Your task to perform on an android device: What's the weather? Image 0: 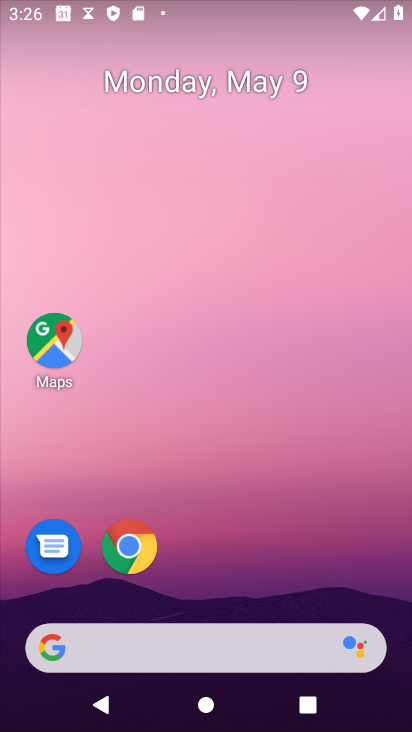
Step 0: drag from (329, 512) to (313, 157)
Your task to perform on an android device: What's the weather? Image 1: 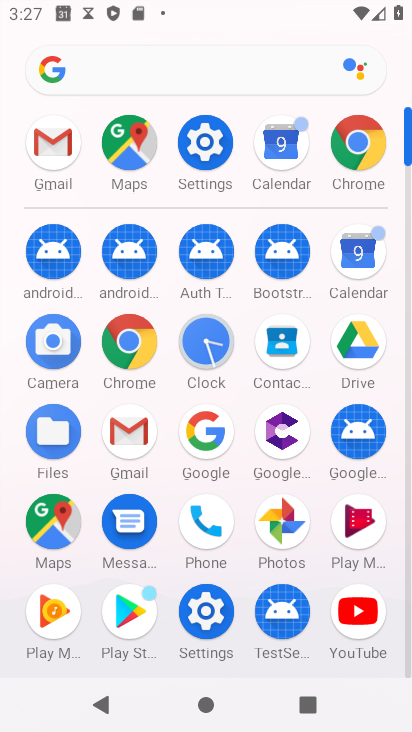
Step 1: press home button
Your task to perform on an android device: What's the weather? Image 2: 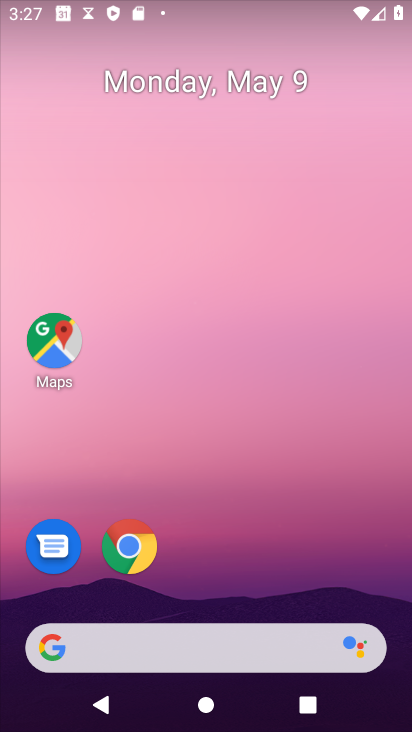
Step 2: click (49, 646)
Your task to perform on an android device: What's the weather? Image 3: 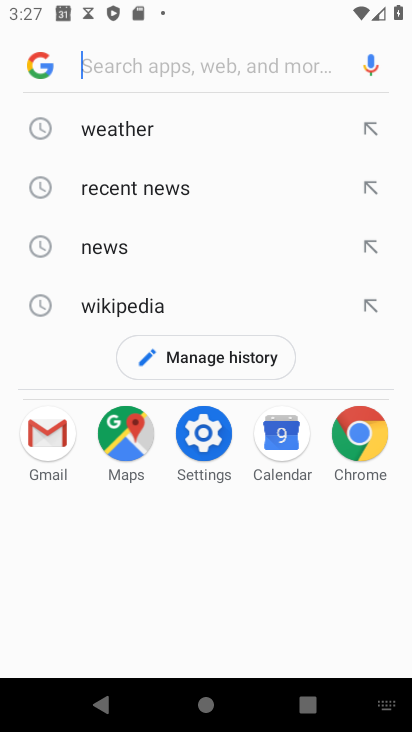
Step 3: click (34, 51)
Your task to perform on an android device: What's the weather? Image 4: 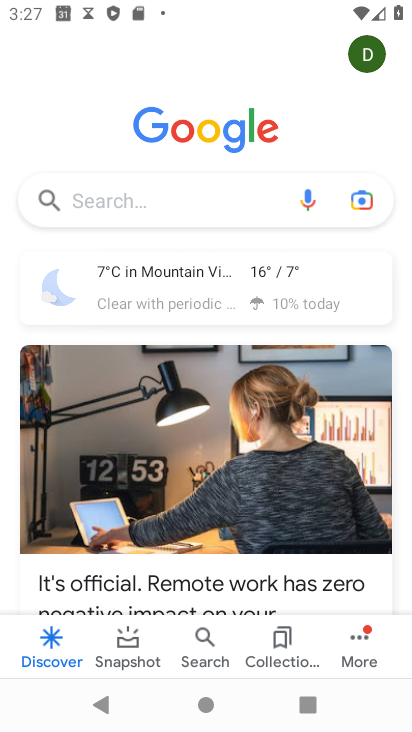
Step 4: click (162, 296)
Your task to perform on an android device: What's the weather? Image 5: 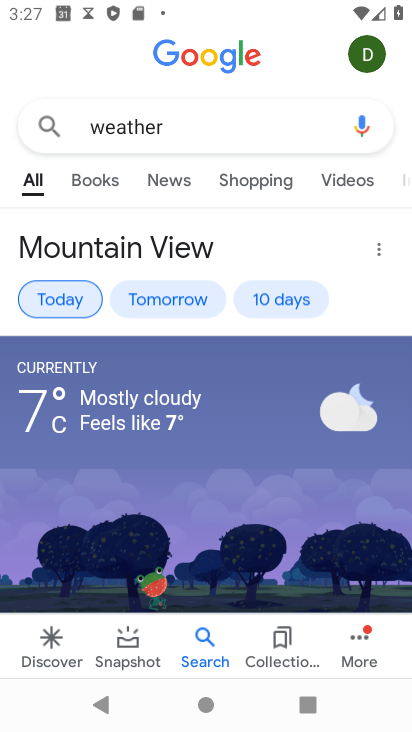
Step 5: task complete